Your task to perform on an android device: move a message to another label in the gmail app Image 0: 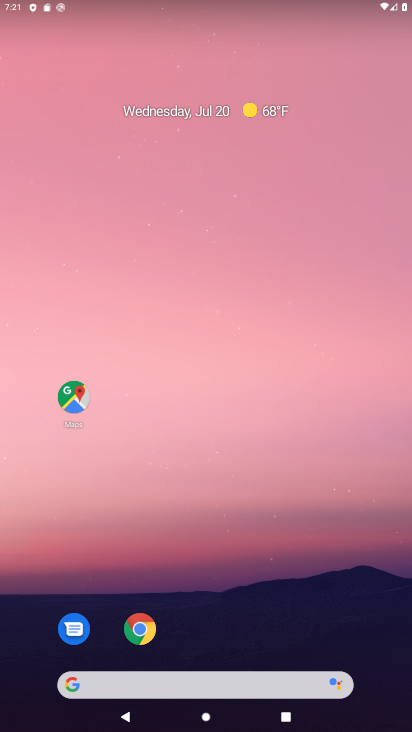
Step 0: drag from (347, 594) to (356, 157)
Your task to perform on an android device: move a message to another label in the gmail app Image 1: 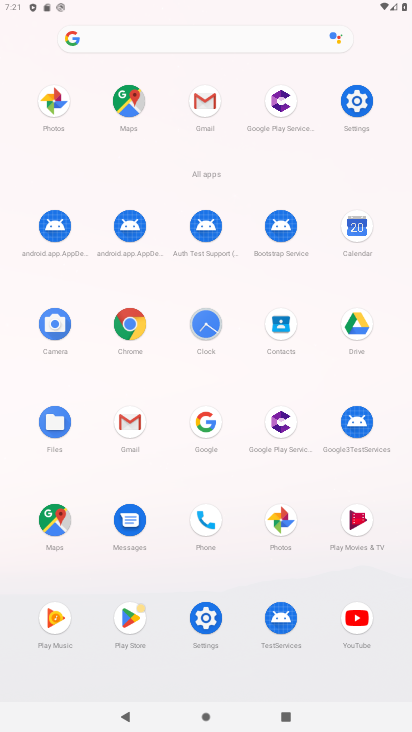
Step 1: click (123, 424)
Your task to perform on an android device: move a message to another label in the gmail app Image 2: 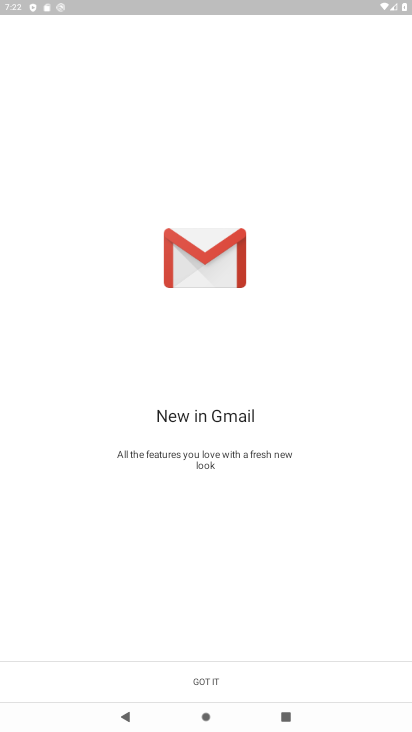
Step 2: click (194, 673)
Your task to perform on an android device: move a message to another label in the gmail app Image 3: 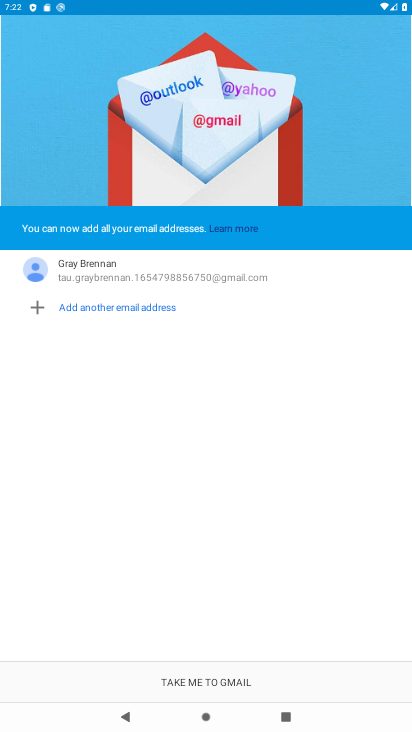
Step 3: click (180, 686)
Your task to perform on an android device: move a message to another label in the gmail app Image 4: 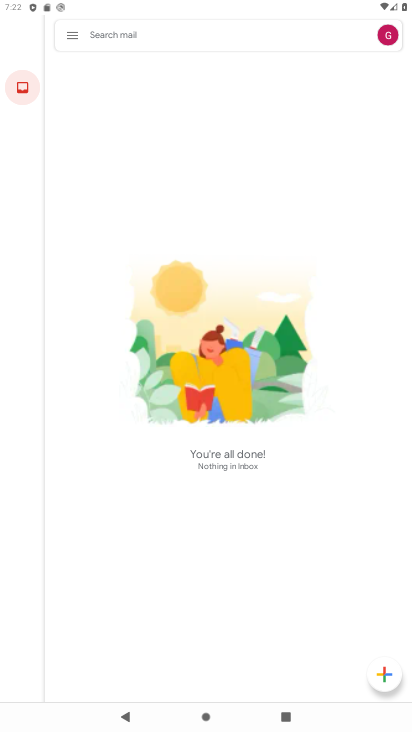
Step 4: click (72, 31)
Your task to perform on an android device: move a message to another label in the gmail app Image 5: 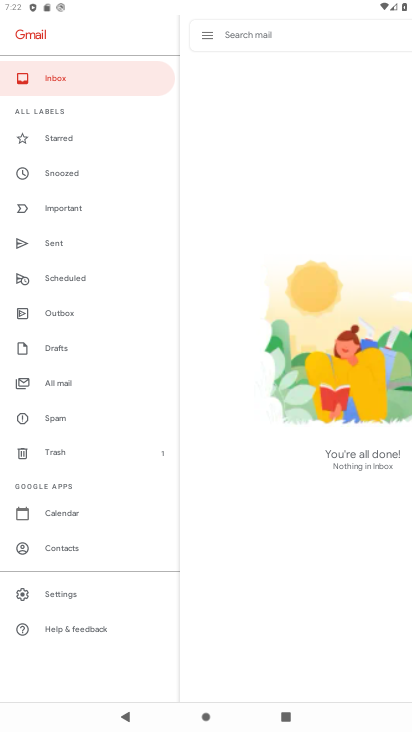
Step 5: click (69, 381)
Your task to perform on an android device: move a message to another label in the gmail app Image 6: 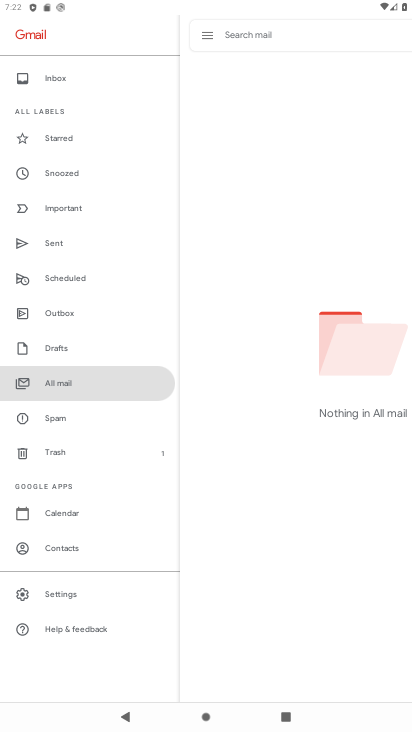
Step 6: task complete